Your task to perform on an android device: open chrome privacy settings Image 0: 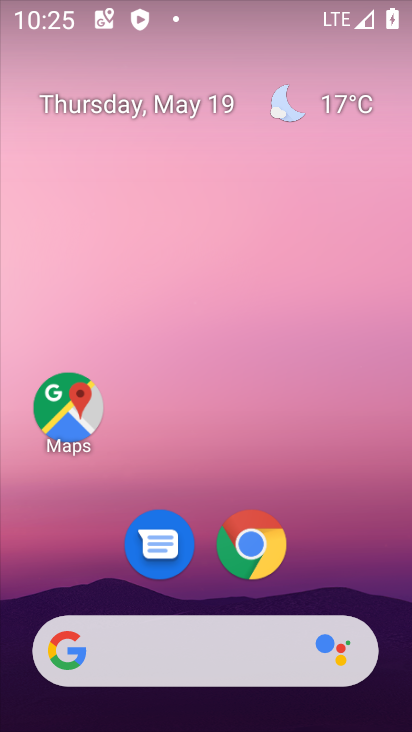
Step 0: click (242, 539)
Your task to perform on an android device: open chrome privacy settings Image 1: 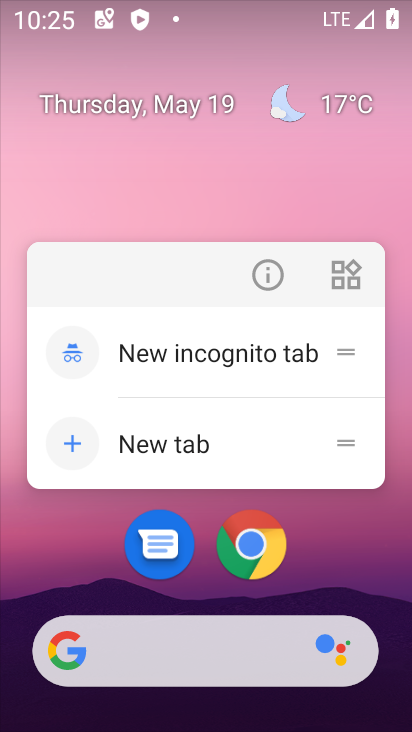
Step 1: click (249, 548)
Your task to perform on an android device: open chrome privacy settings Image 2: 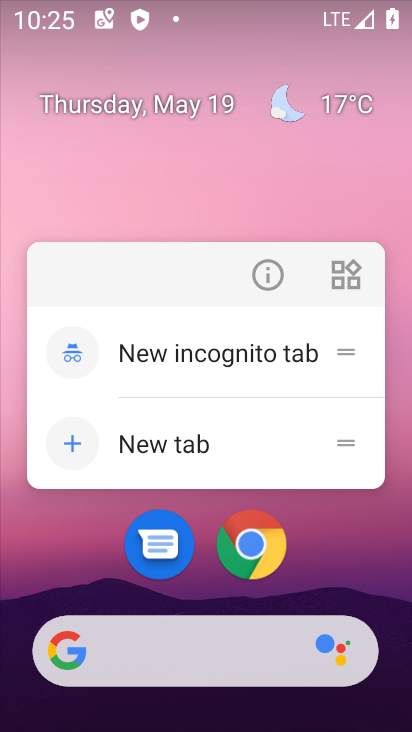
Step 2: click (253, 564)
Your task to perform on an android device: open chrome privacy settings Image 3: 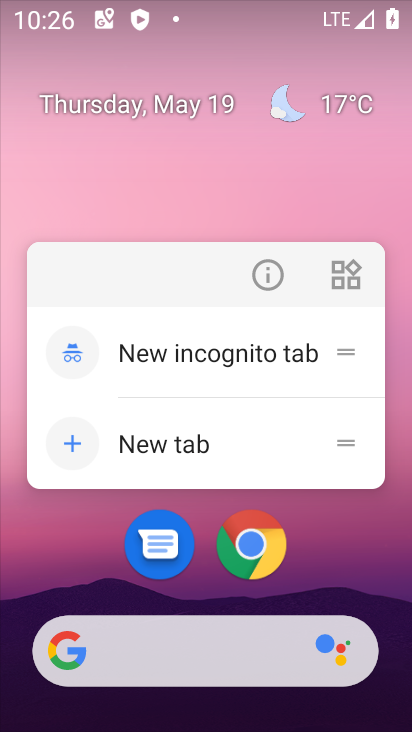
Step 3: click (267, 528)
Your task to perform on an android device: open chrome privacy settings Image 4: 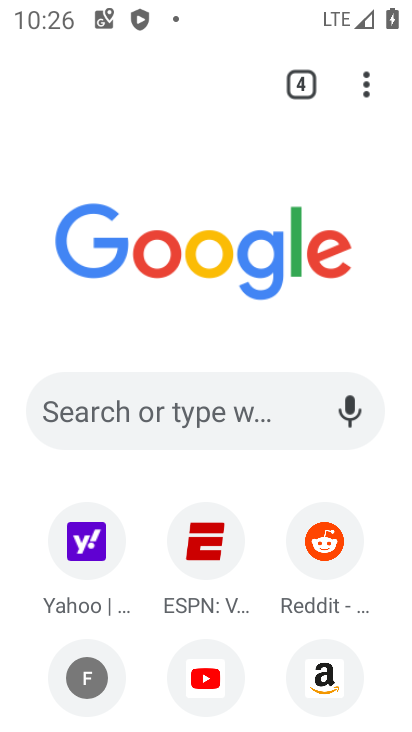
Step 4: click (368, 78)
Your task to perform on an android device: open chrome privacy settings Image 5: 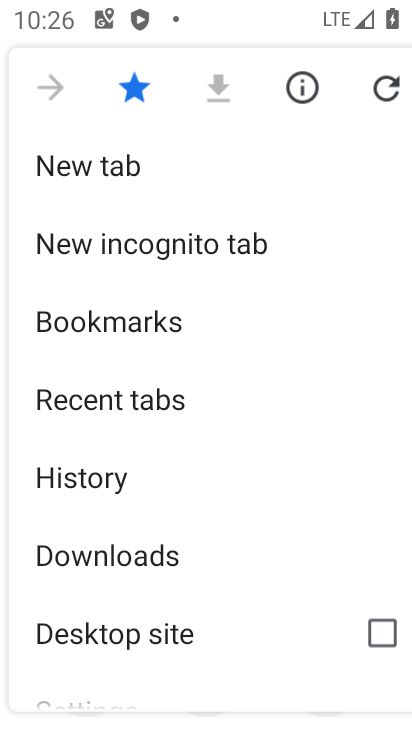
Step 5: drag from (195, 630) to (119, 13)
Your task to perform on an android device: open chrome privacy settings Image 6: 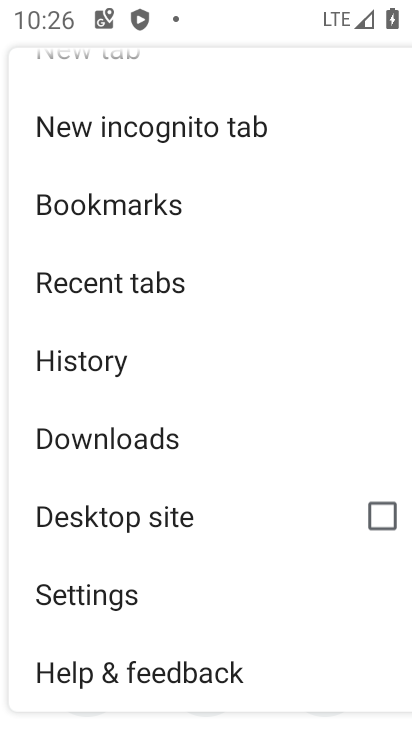
Step 6: click (107, 591)
Your task to perform on an android device: open chrome privacy settings Image 7: 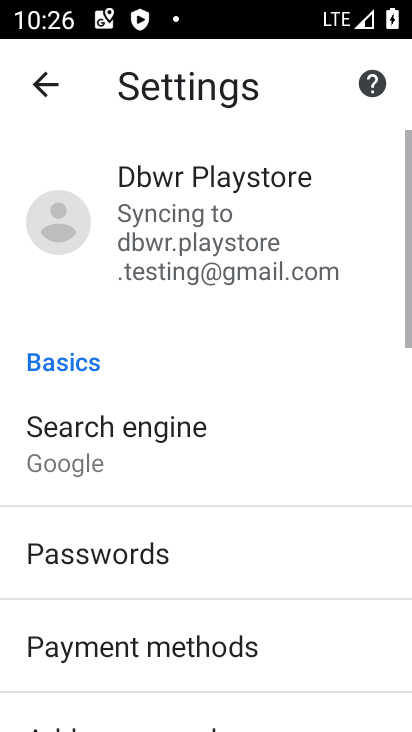
Step 7: drag from (261, 631) to (284, 77)
Your task to perform on an android device: open chrome privacy settings Image 8: 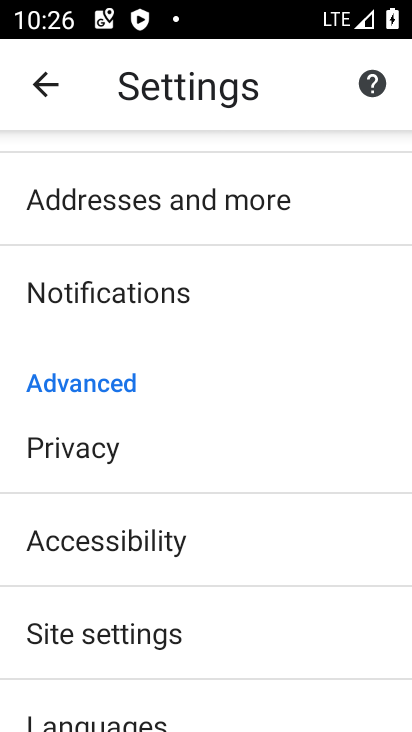
Step 8: click (130, 447)
Your task to perform on an android device: open chrome privacy settings Image 9: 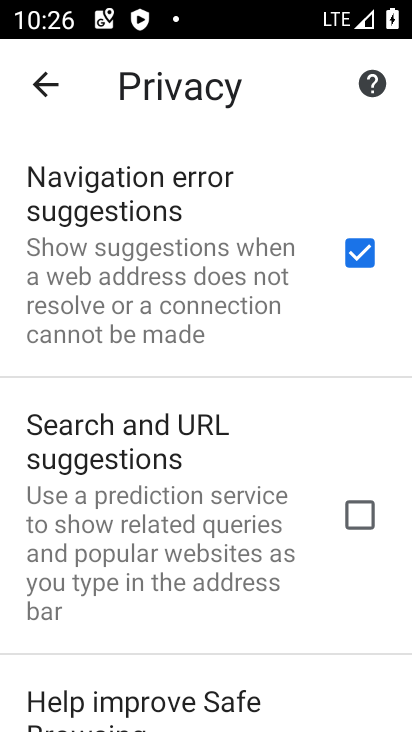
Step 9: task complete